Your task to perform on an android device: Go to network settings Image 0: 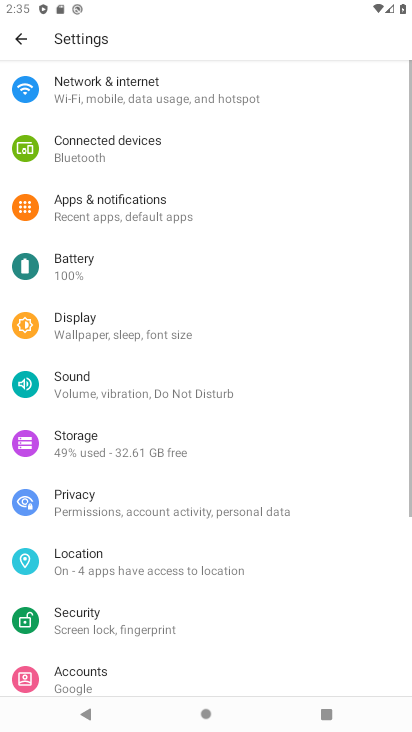
Step 0: click (178, 104)
Your task to perform on an android device: Go to network settings Image 1: 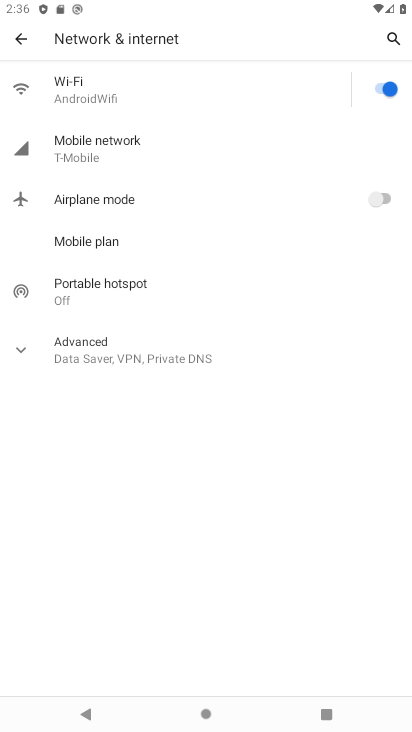
Step 1: task complete